Your task to perform on an android device: Search for vegetarian restaurants on Maps Image 0: 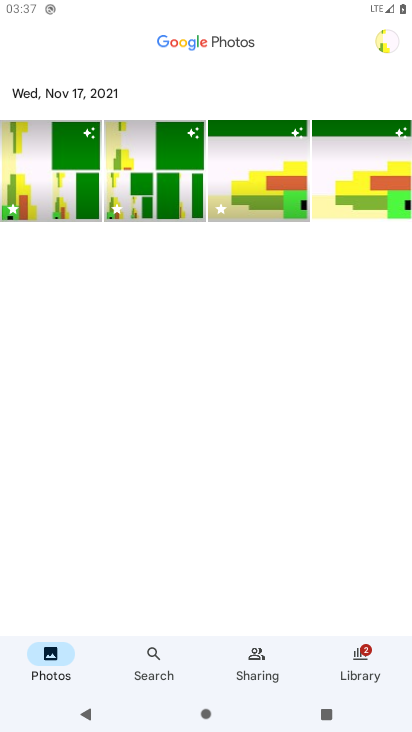
Step 0: press home button
Your task to perform on an android device: Search for vegetarian restaurants on Maps Image 1: 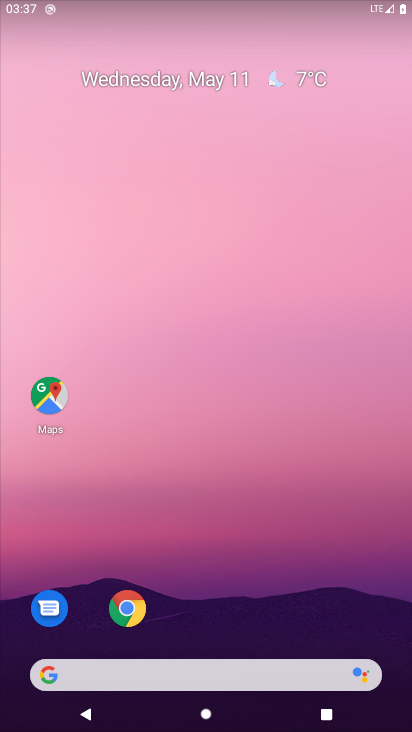
Step 1: click (53, 396)
Your task to perform on an android device: Search for vegetarian restaurants on Maps Image 2: 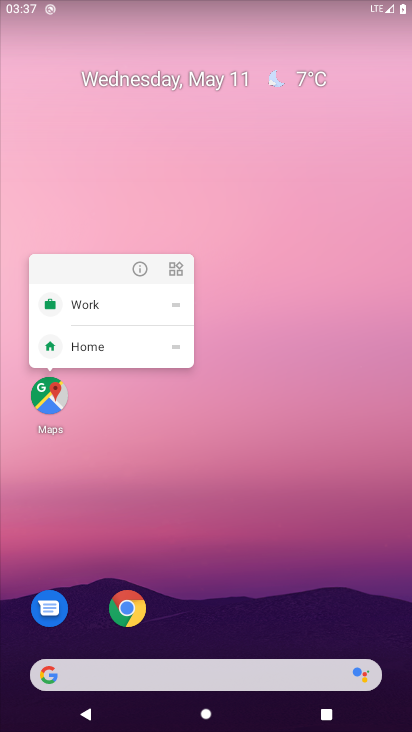
Step 2: click (53, 396)
Your task to perform on an android device: Search for vegetarian restaurants on Maps Image 3: 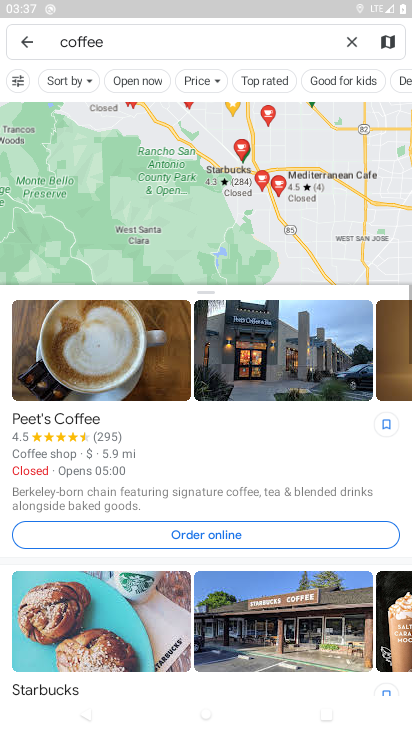
Step 3: click (346, 44)
Your task to perform on an android device: Search for vegetarian restaurants on Maps Image 4: 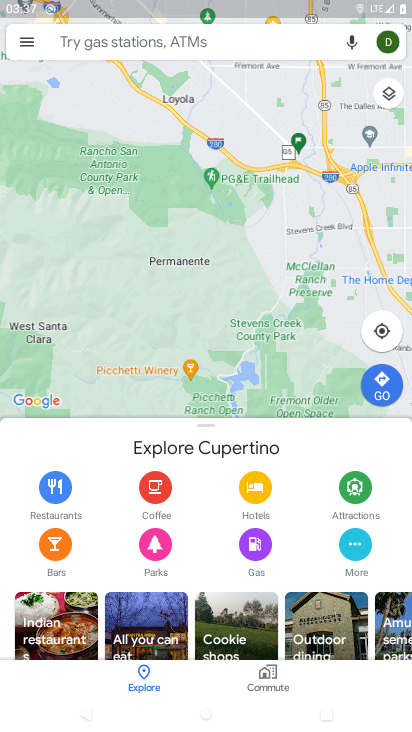
Step 4: click (89, 41)
Your task to perform on an android device: Search for vegetarian restaurants on Maps Image 5: 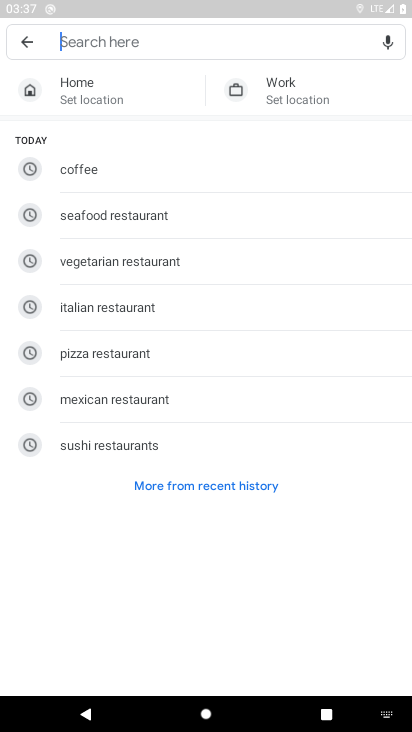
Step 5: click (131, 261)
Your task to perform on an android device: Search for vegetarian restaurants on Maps Image 6: 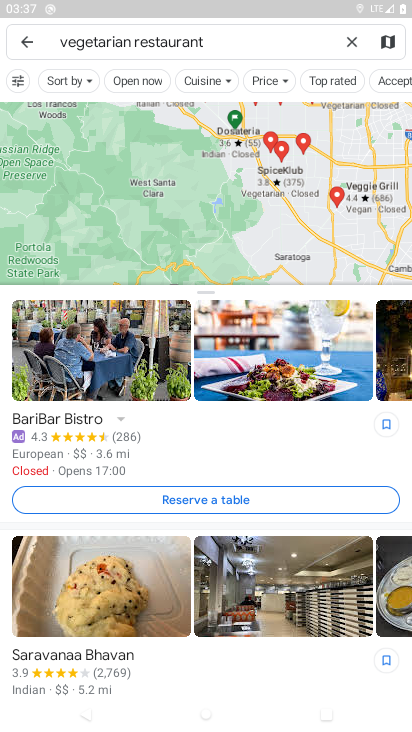
Step 6: task complete